Your task to perform on an android device: Go to accessibility settings Image 0: 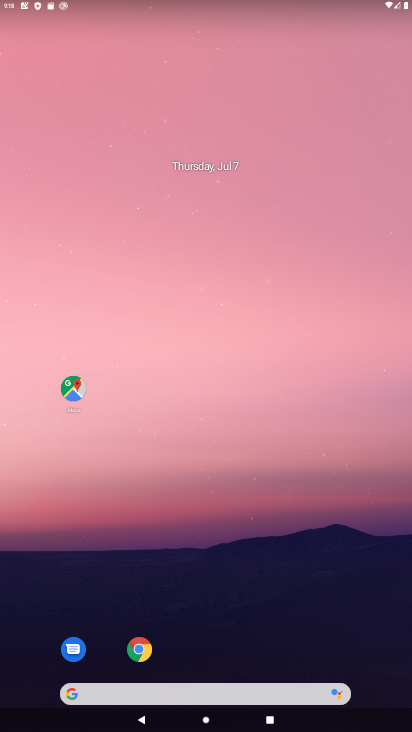
Step 0: drag from (245, 599) to (223, 352)
Your task to perform on an android device: Go to accessibility settings Image 1: 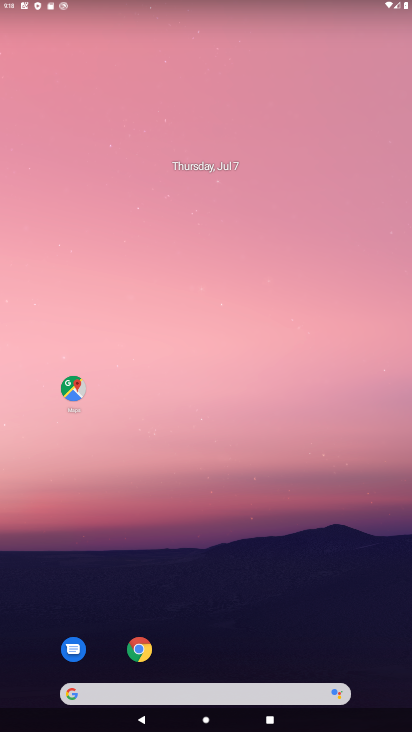
Step 1: drag from (243, 514) to (217, 48)
Your task to perform on an android device: Go to accessibility settings Image 2: 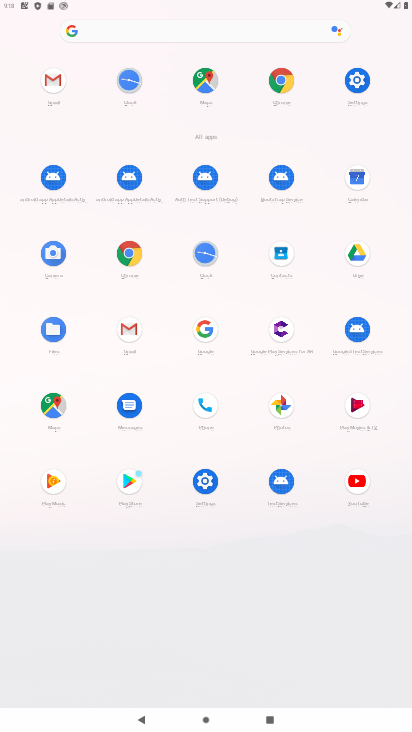
Step 2: click (363, 78)
Your task to perform on an android device: Go to accessibility settings Image 3: 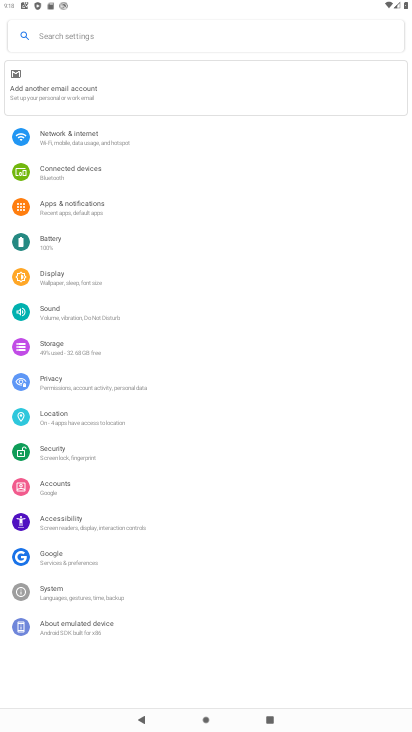
Step 3: click (60, 524)
Your task to perform on an android device: Go to accessibility settings Image 4: 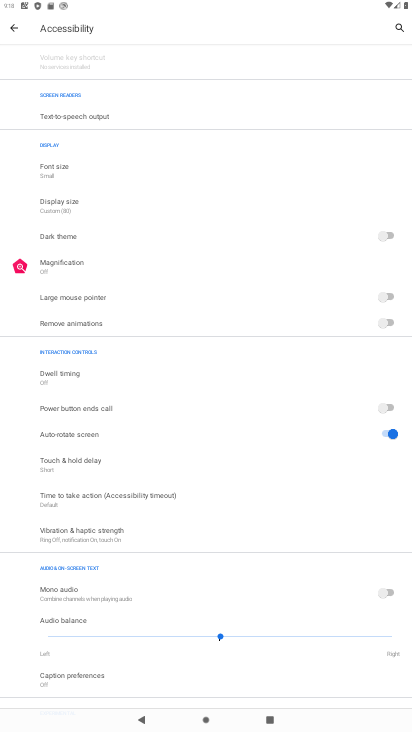
Step 4: task complete